Your task to perform on an android device: add a label to a message in the gmail app Image 0: 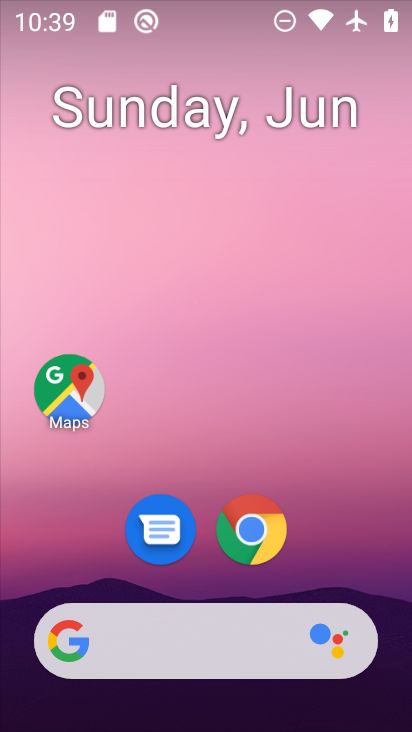
Step 0: drag from (402, 644) to (297, 142)
Your task to perform on an android device: add a label to a message in the gmail app Image 1: 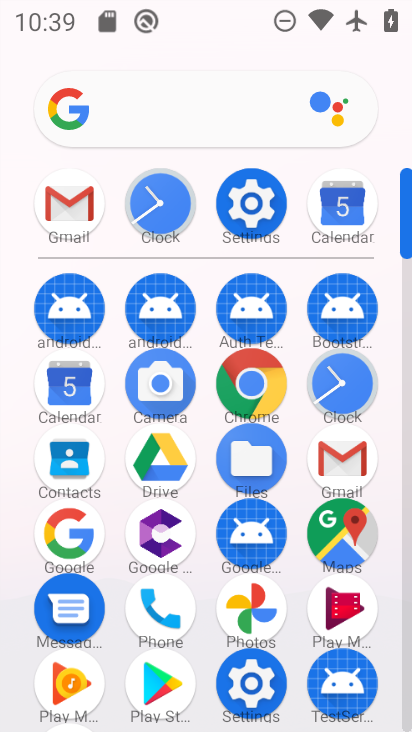
Step 1: click (338, 458)
Your task to perform on an android device: add a label to a message in the gmail app Image 2: 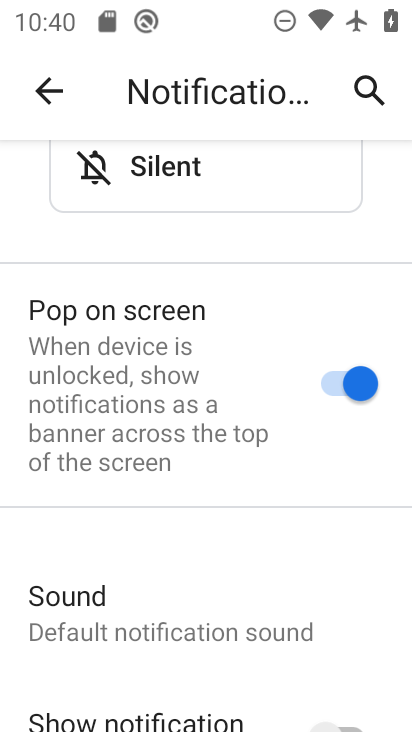
Step 2: press back button
Your task to perform on an android device: add a label to a message in the gmail app Image 3: 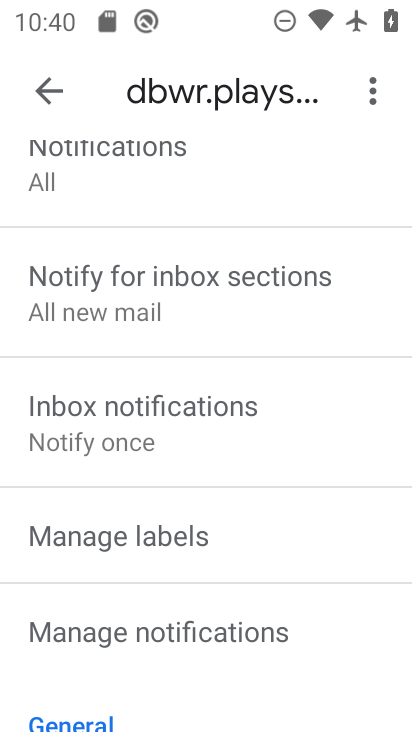
Step 3: press back button
Your task to perform on an android device: add a label to a message in the gmail app Image 4: 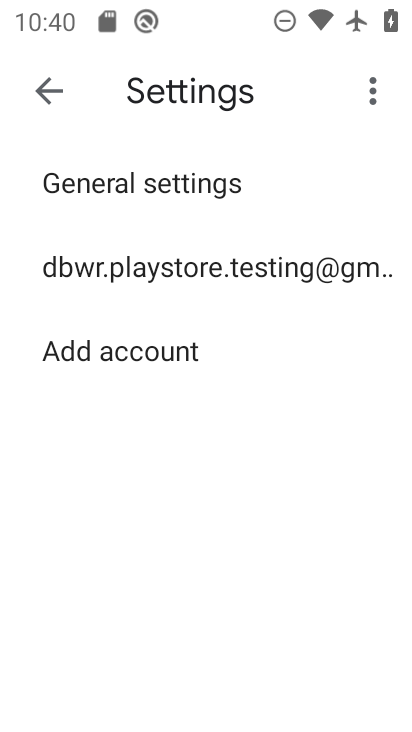
Step 4: press back button
Your task to perform on an android device: add a label to a message in the gmail app Image 5: 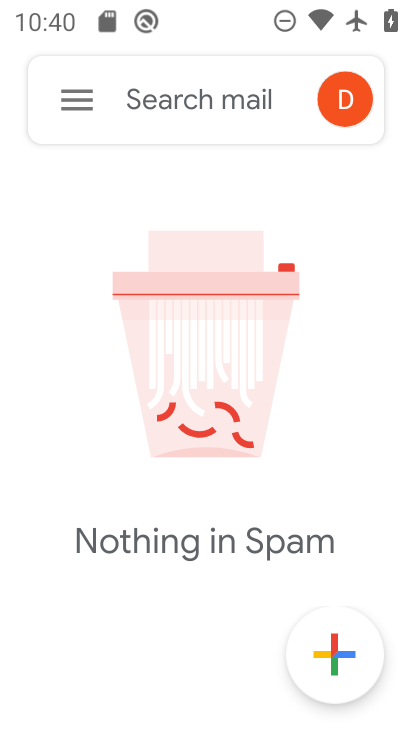
Step 5: click (76, 102)
Your task to perform on an android device: add a label to a message in the gmail app Image 6: 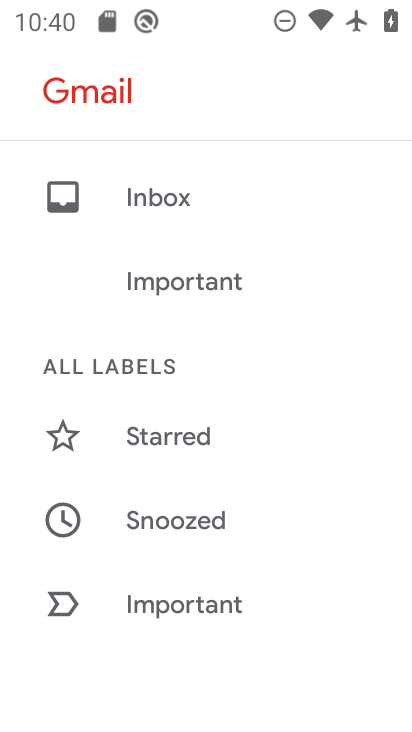
Step 6: drag from (257, 592) to (244, 27)
Your task to perform on an android device: add a label to a message in the gmail app Image 7: 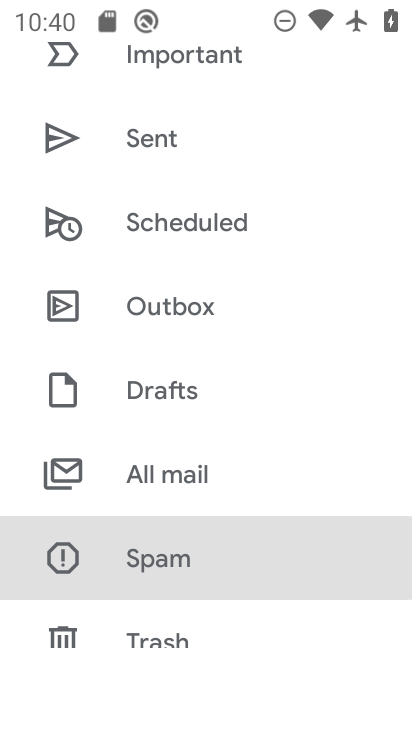
Step 7: click (177, 477)
Your task to perform on an android device: add a label to a message in the gmail app Image 8: 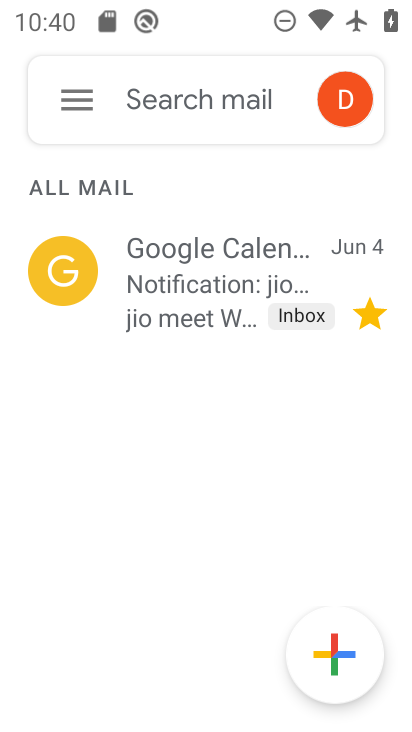
Step 8: click (232, 245)
Your task to perform on an android device: add a label to a message in the gmail app Image 9: 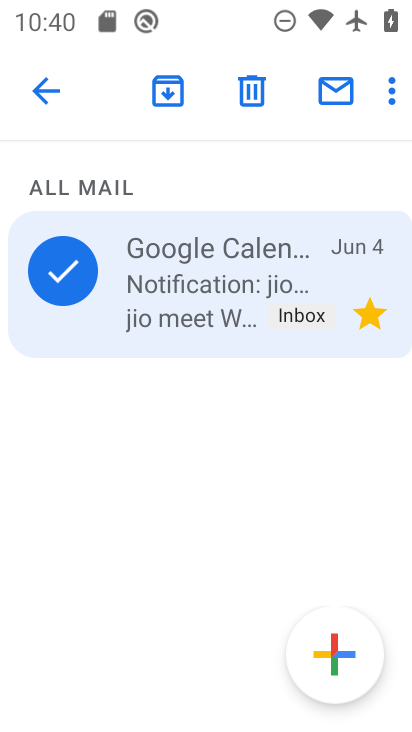
Step 9: click (391, 98)
Your task to perform on an android device: add a label to a message in the gmail app Image 10: 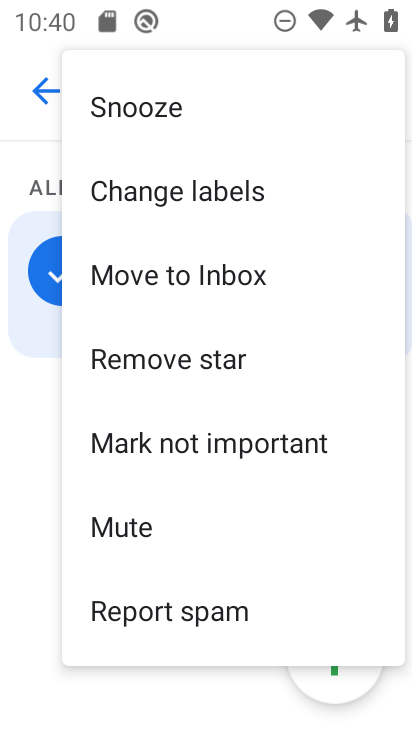
Step 10: click (158, 278)
Your task to perform on an android device: add a label to a message in the gmail app Image 11: 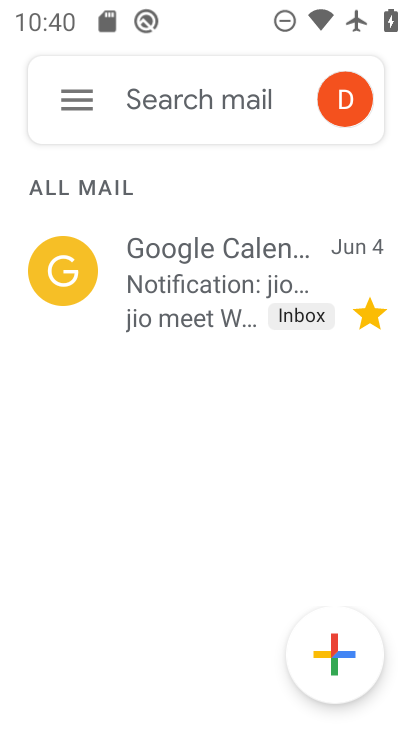
Step 11: task complete